Your task to perform on an android device: create a new album in the google photos Image 0: 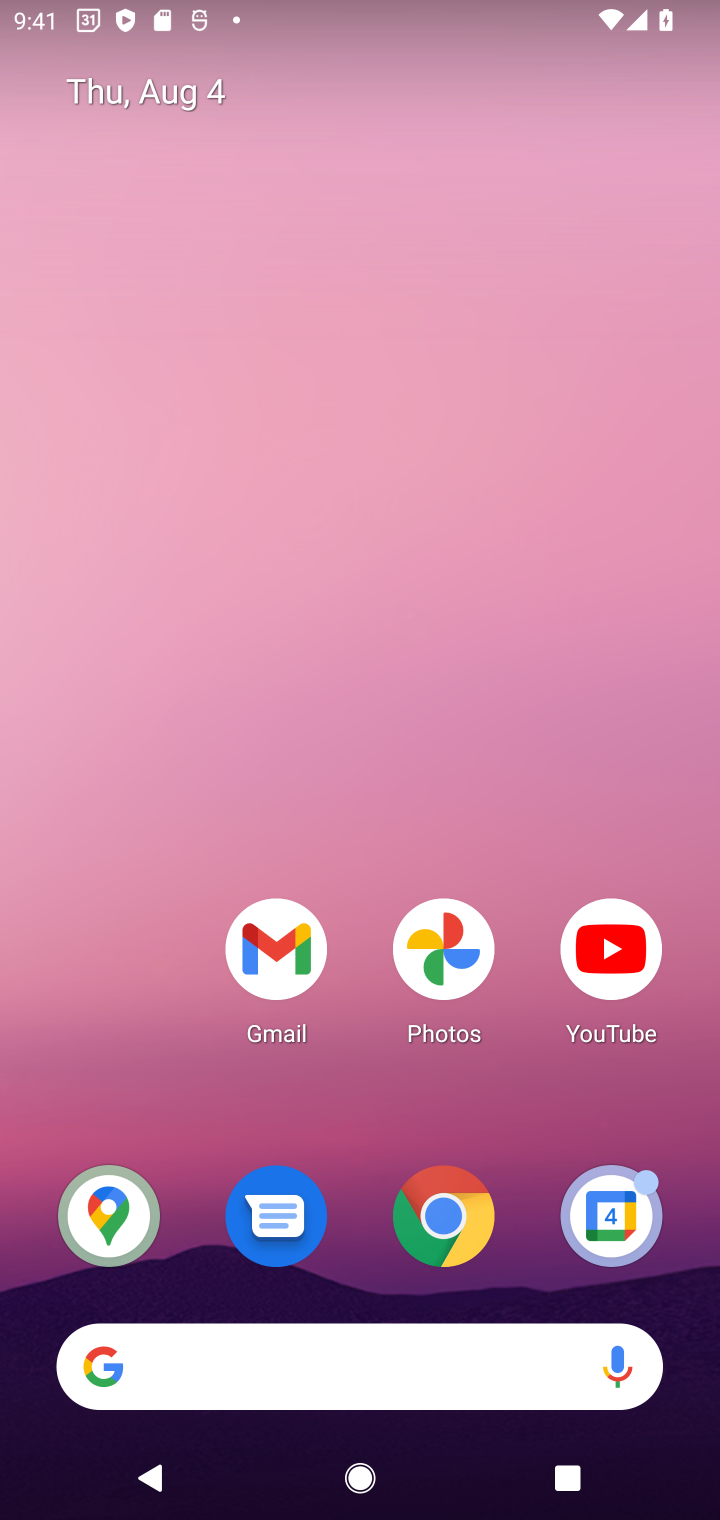
Step 0: click (446, 939)
Your task to perform on an android device: create a new album in the google photos Image 1: 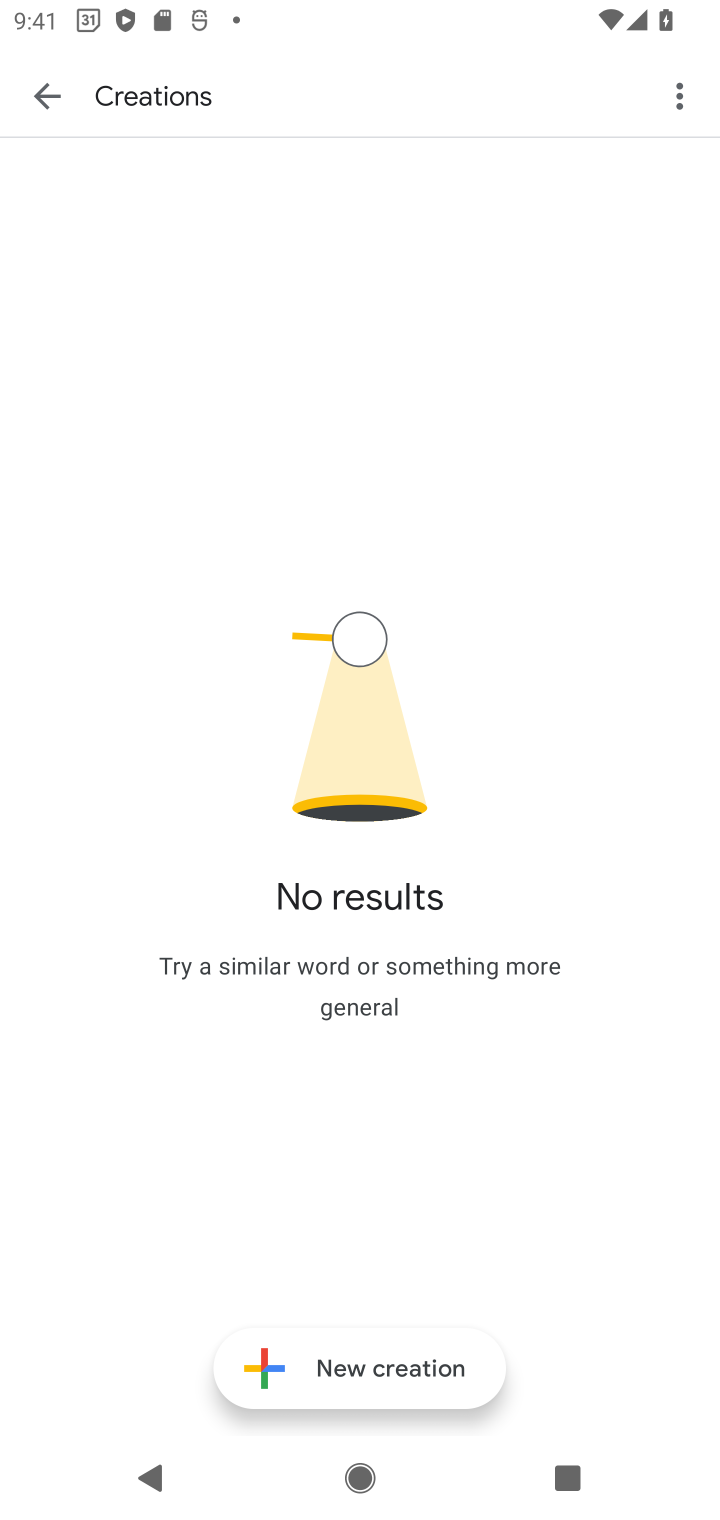
Step 1: press back button
Your task to perform on an android device: create a new album in the google photos Image 2: 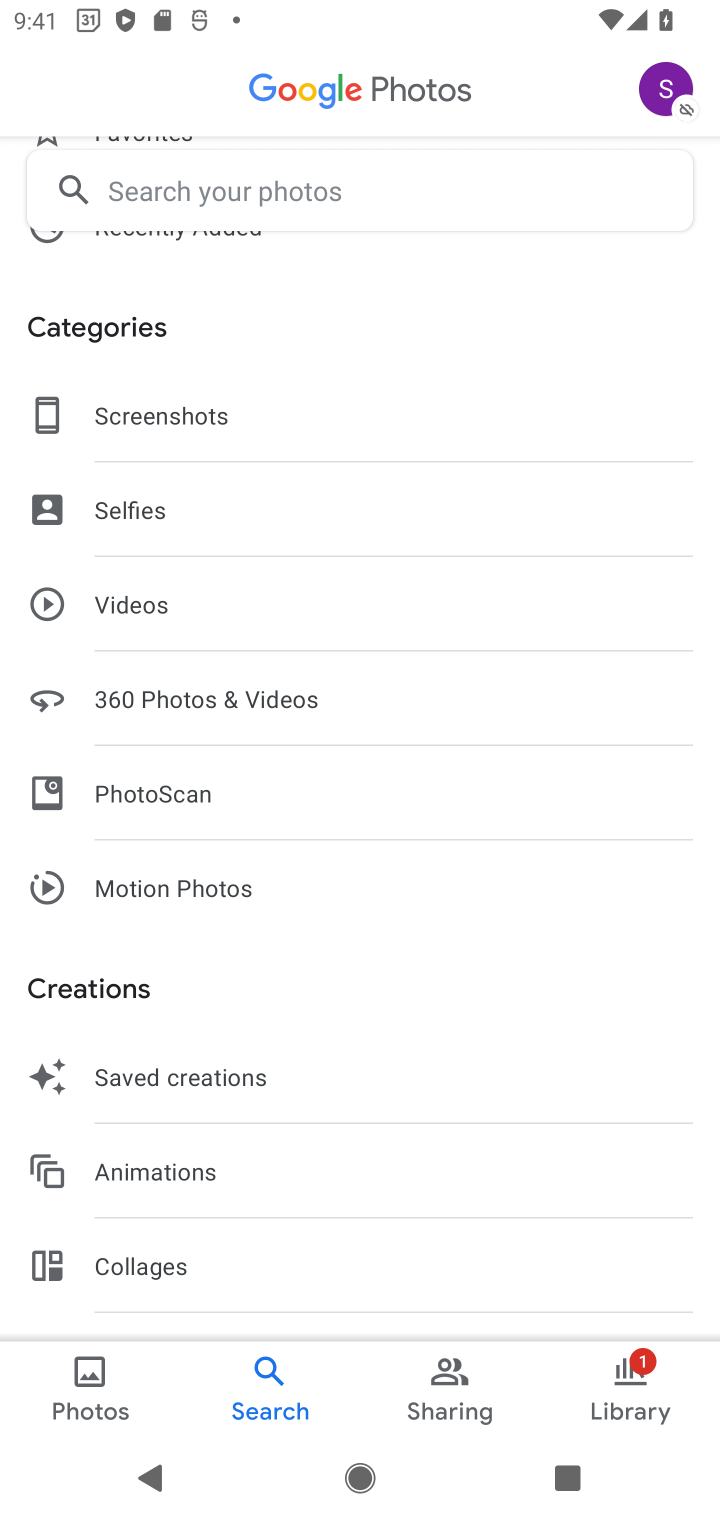
Step 2: click (85, 1395)
Your task to perform on an android device: create a new album in the google photos Image 3: 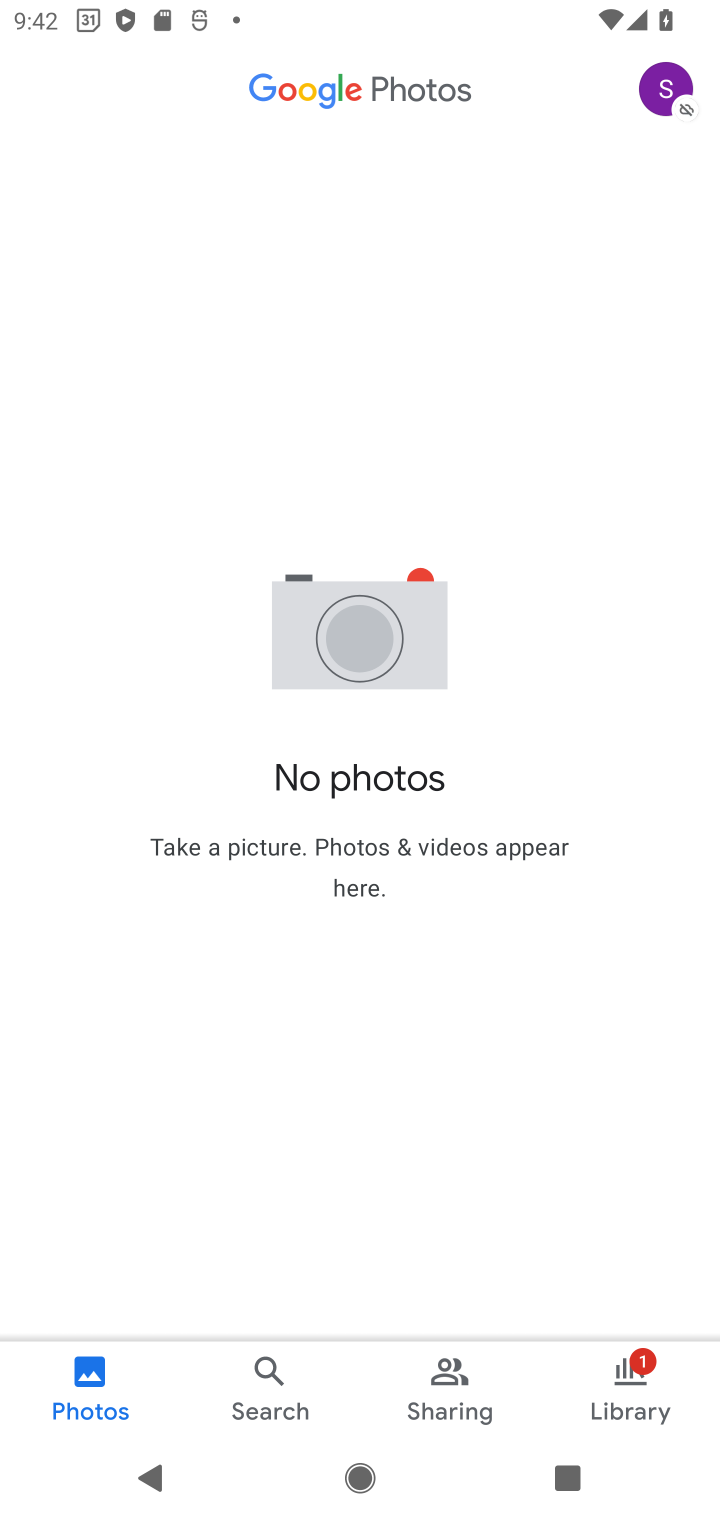
Step 3: click (265, 1376)
Your task to perform on an android device: create a new album in the google photos Image 4: 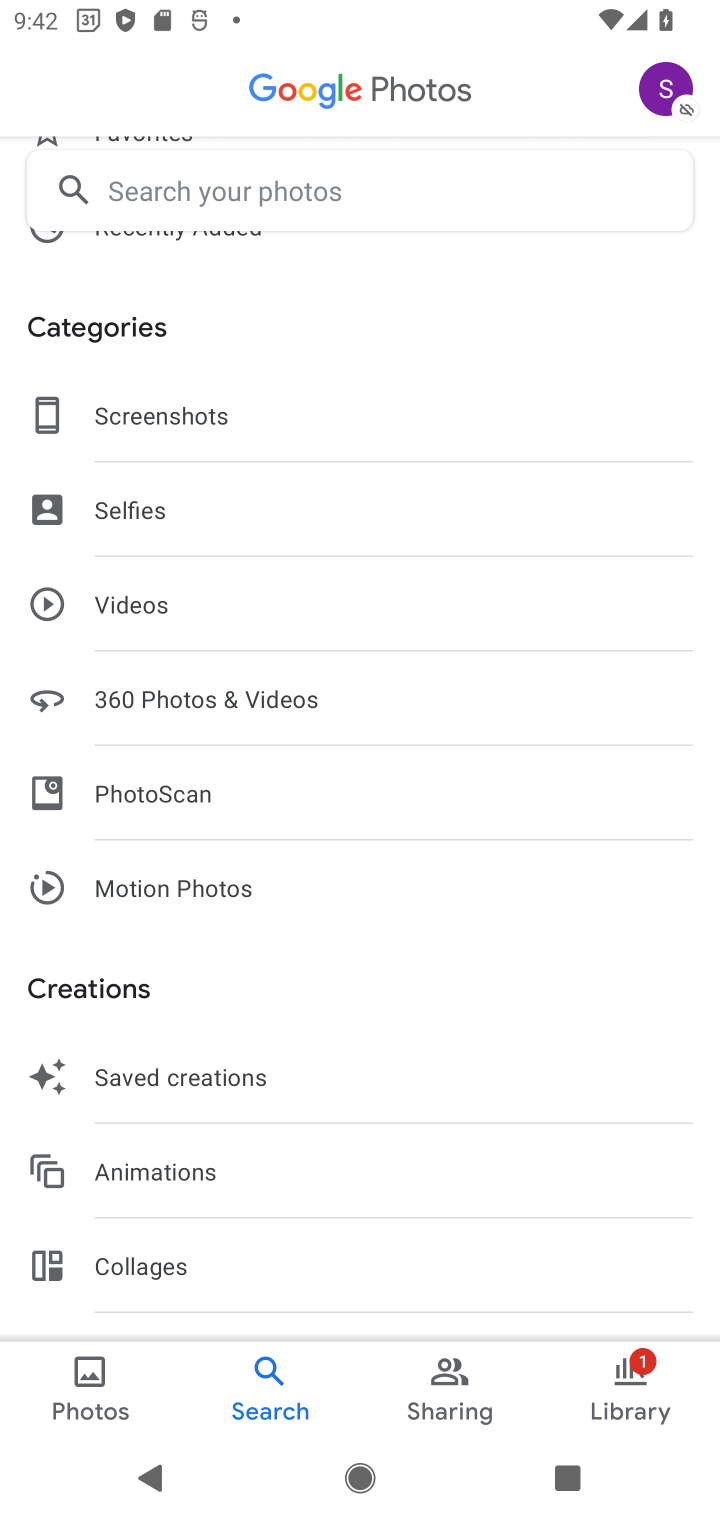
Step 4: task complete